Your task to perform on an android device: Turn on the flashlight Image 0: 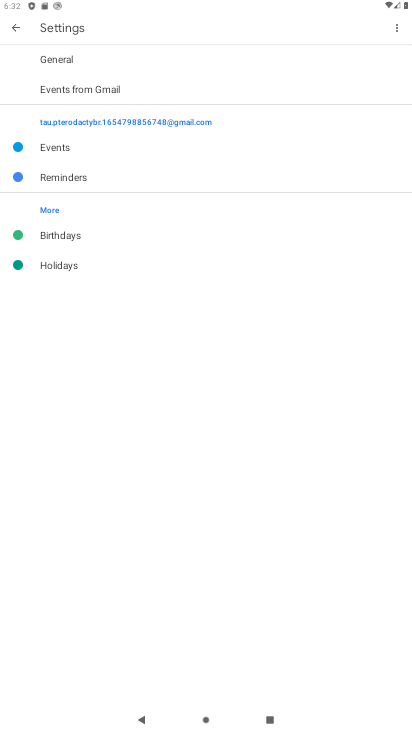
Step 0: press home button
Your task to perform on an android device: Turn on the flashlight Image 1: 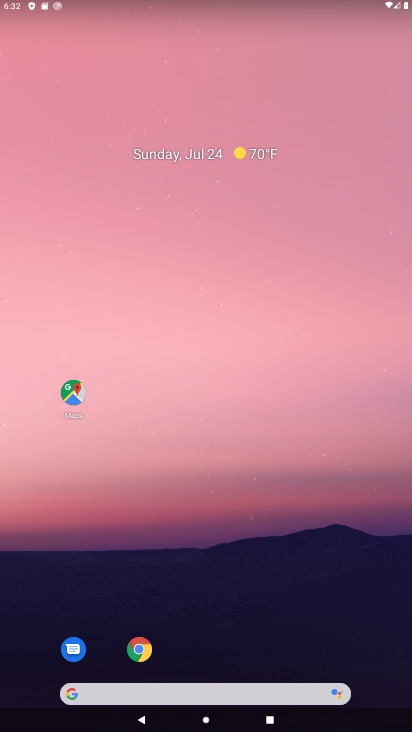
Step 1: drag from (189, 588) to (87, 50)
Your task to perform on an android device: Turn on the flashlight Image 2: 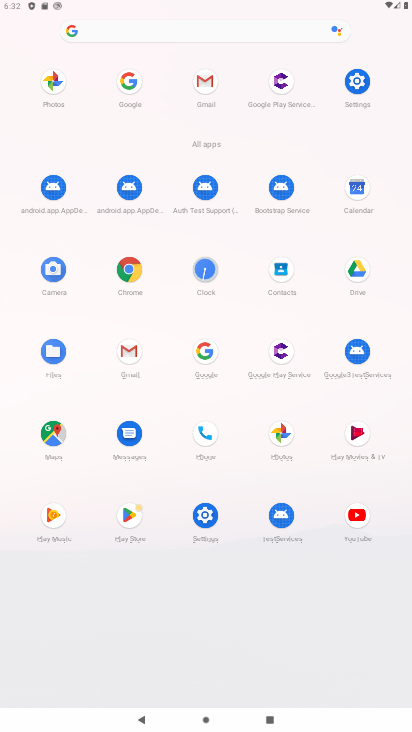
Step 2: click (360, 78)
Your task to perform on an android device: Turn on the flashlight Image 3: 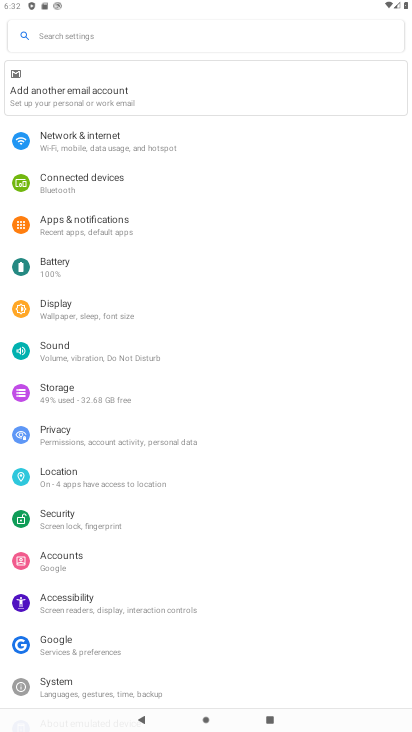
Step 3: click (49, 306)
Your task to perform on an android device: Turn on the flashlight Image 4: 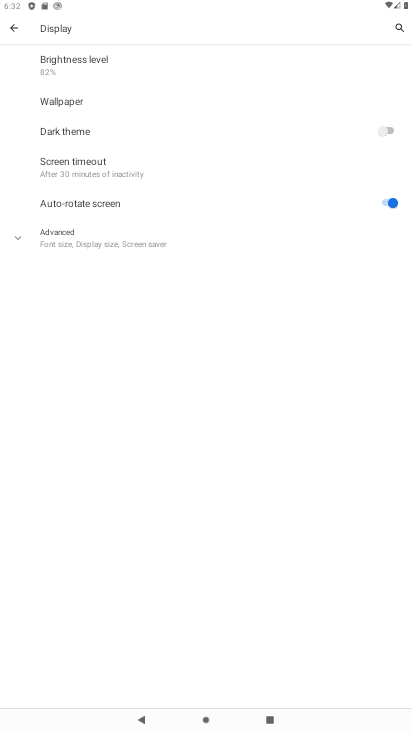
Step 4: task complete